Your task to perform on an android device: Go to Yahoo.com Image 0: 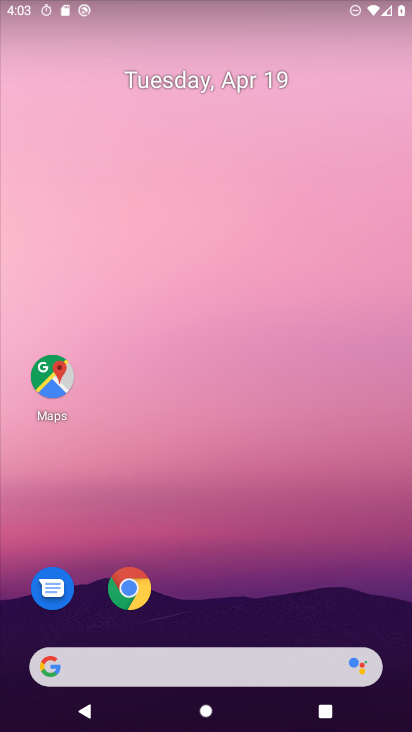
Step 0: click (132, 595)
Your task to perform on an android device: Go to Yahoo.com Image 1: 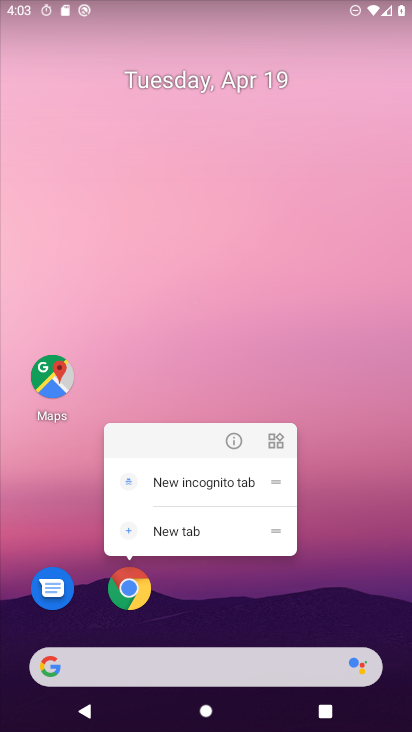
Step 1: click (128, 595)
Your task to perform on an android device: Go to Yahoo.com Image 2: 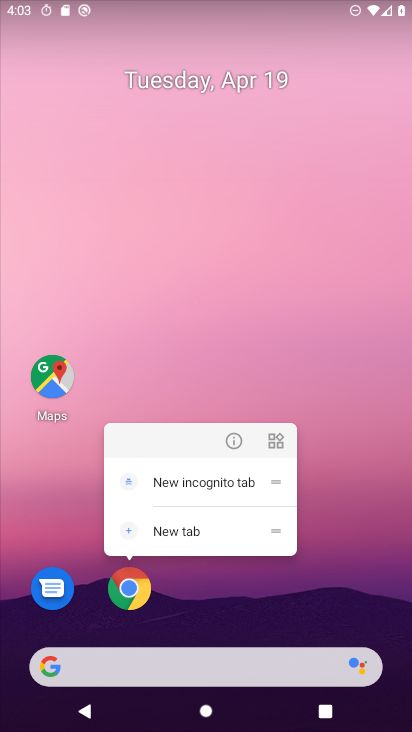
Step 2: click (132, 590)
Your task to perform on an android device: Go to Yahoo.com Image 3: 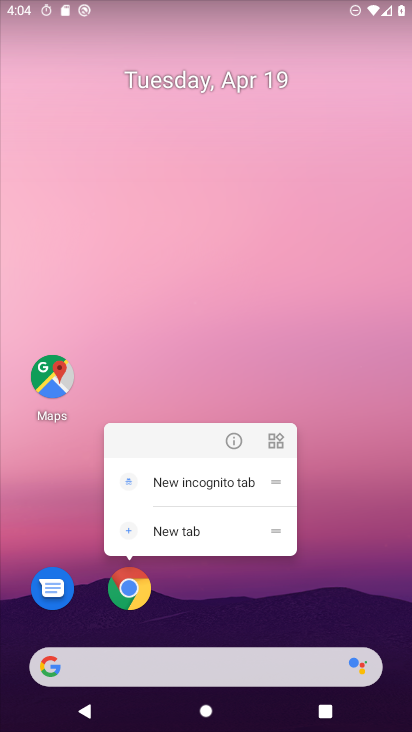
Step 3: click (134, 589)
Your task to perform on an android device: Go to Yahoo.com Image 4: 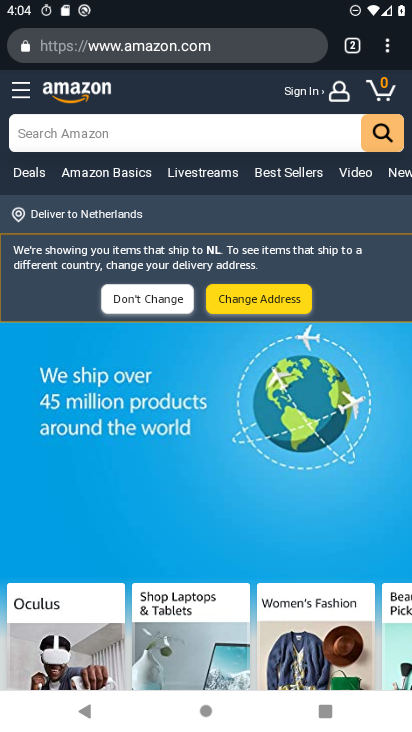
Step 4: click (346, 39)
Your task to perform on an android device: Go to Yahoo.com Image 5: 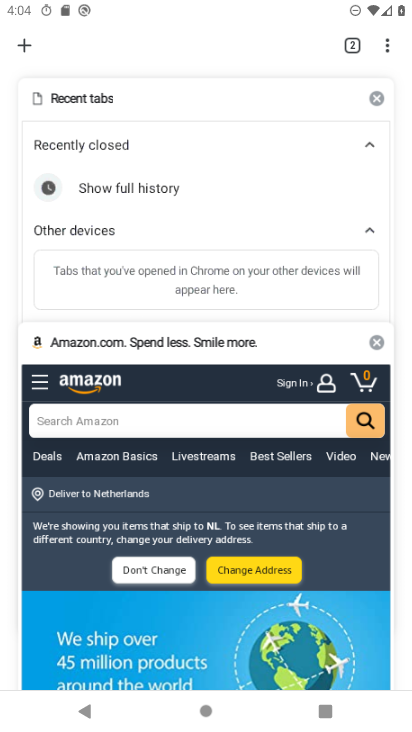
Step 5: click (15, 51)
Your task to perform on an android device: Go to Yahoo.com Image 6: 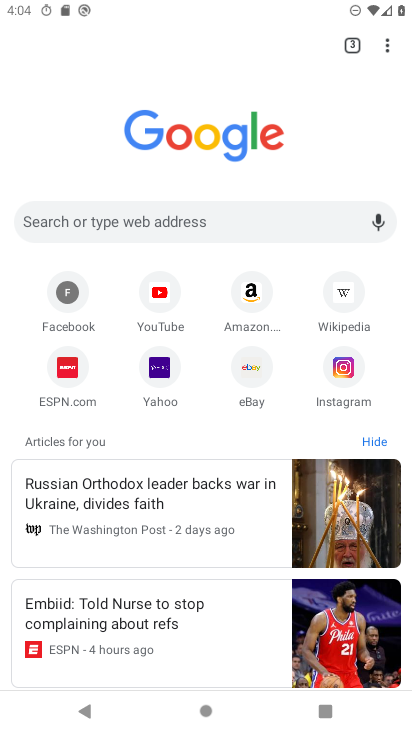
Step 6: click (156, 365)
Your task to perform on an android device: Go to Yahoo.com Image 7: 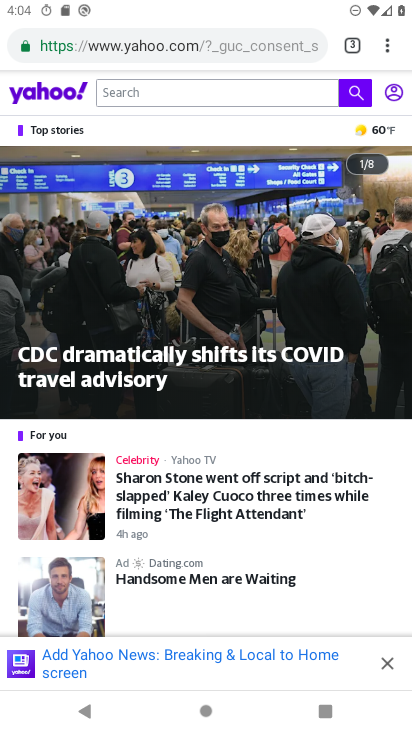
Step 7: task complete